Your task to perform on an android device: Open Wikipedia Image 0: 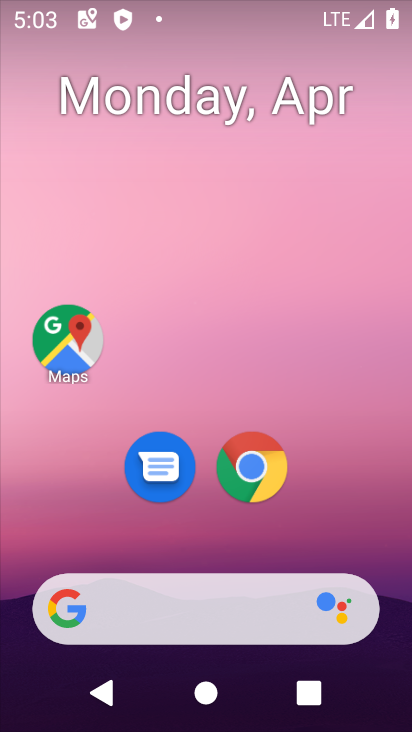
Step 0: drag from (309, 434) to (364, 0)
Your task to perform on an android device: Open Wikipedia Image 1: 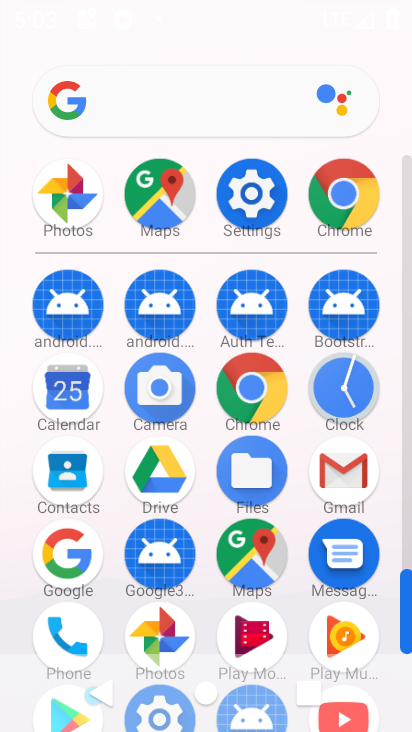
Step 1: click (263, 390)
Your task to perform on an android device: Open Wikipedia Image 2: 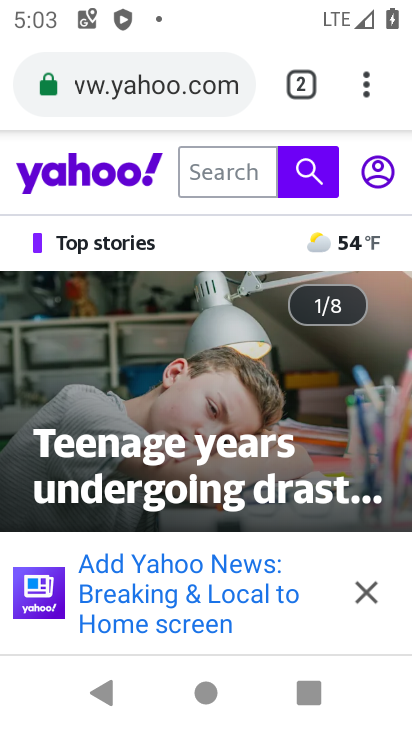
Step 2: click (214, 88)
Your task to perform on an android device: Open Wikipedia Image 3: 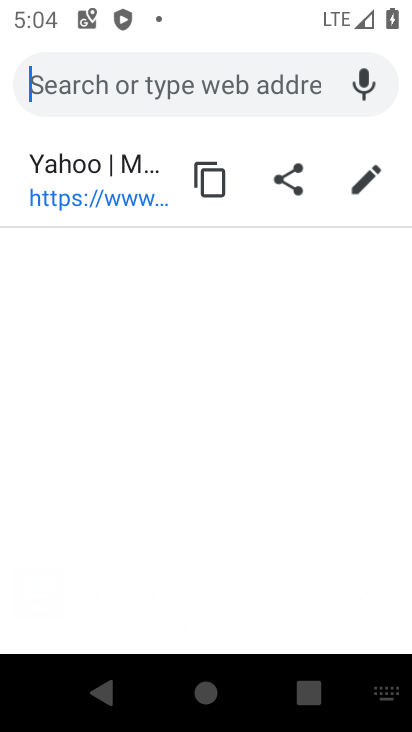
Step 3: type "wikipedia"
Your task to perform on an android device: Open Wikipedia Image 4: 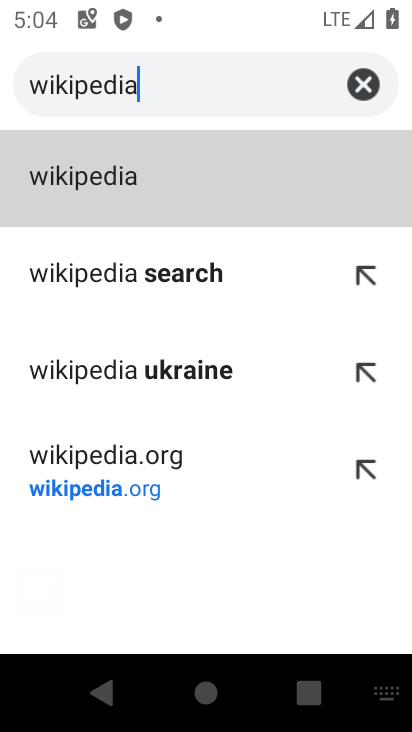
Step 4: click (190, 162)
Your task to perform on an android device: Open Wikipedia Image 5: 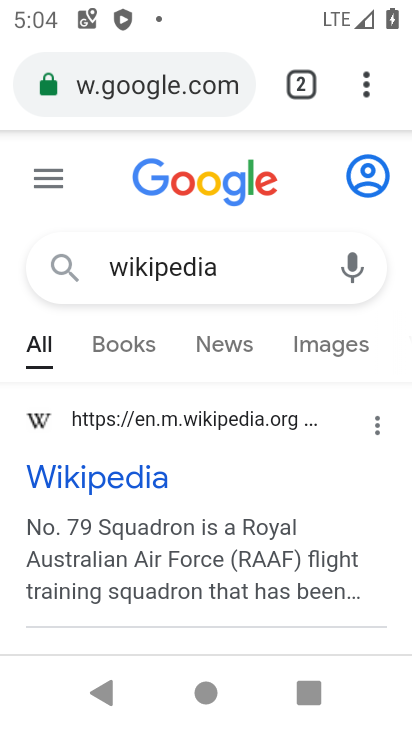
Step 5: task complete